Your task to perform on an android device: Go to internet settings Image 0: 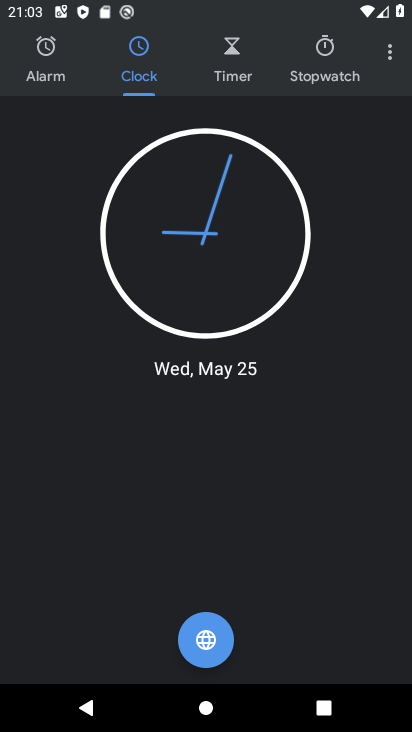
Step 0: press home button
Your task to perform on an android device: Go to internet settings Image 1: 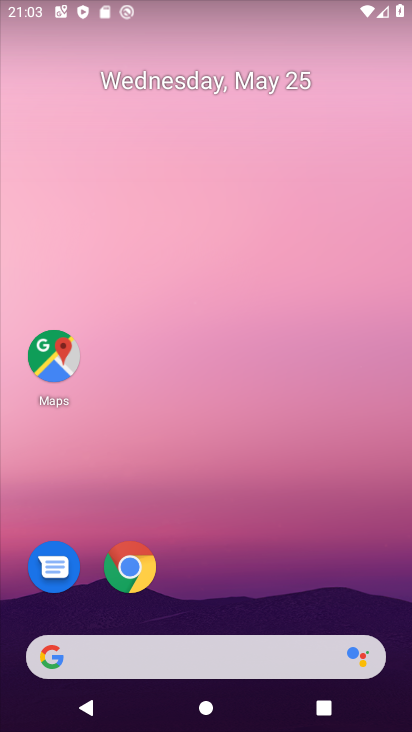
Step 1: drag from (295, 521) to (305, 27)
Your task to perform on an android device: Go to internet settings Image 2: 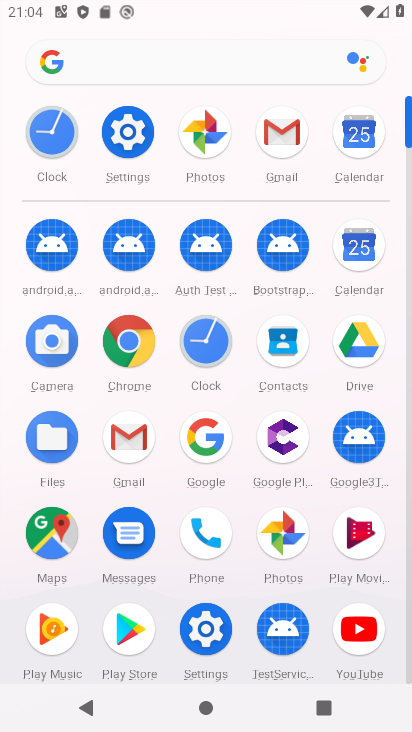
Step 2: click (133, 139)
Your task to perform on an android device: Go to internet settings Image 3: 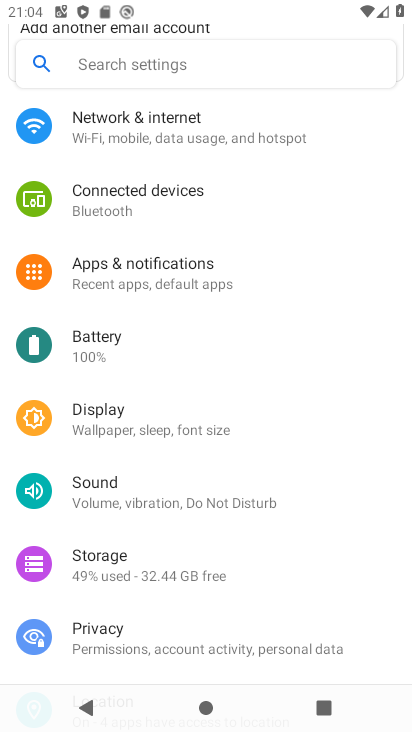
Step 3: click (217, 132)
Your task to perform on an android device: Go to internet settings Image 4: 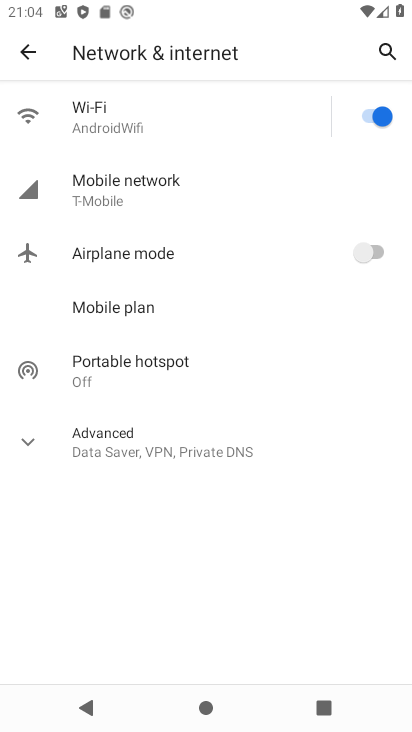
Step 4: task complete